Your task to perform on an android device: Clear the shopping cart on amazon.com. Image 0: 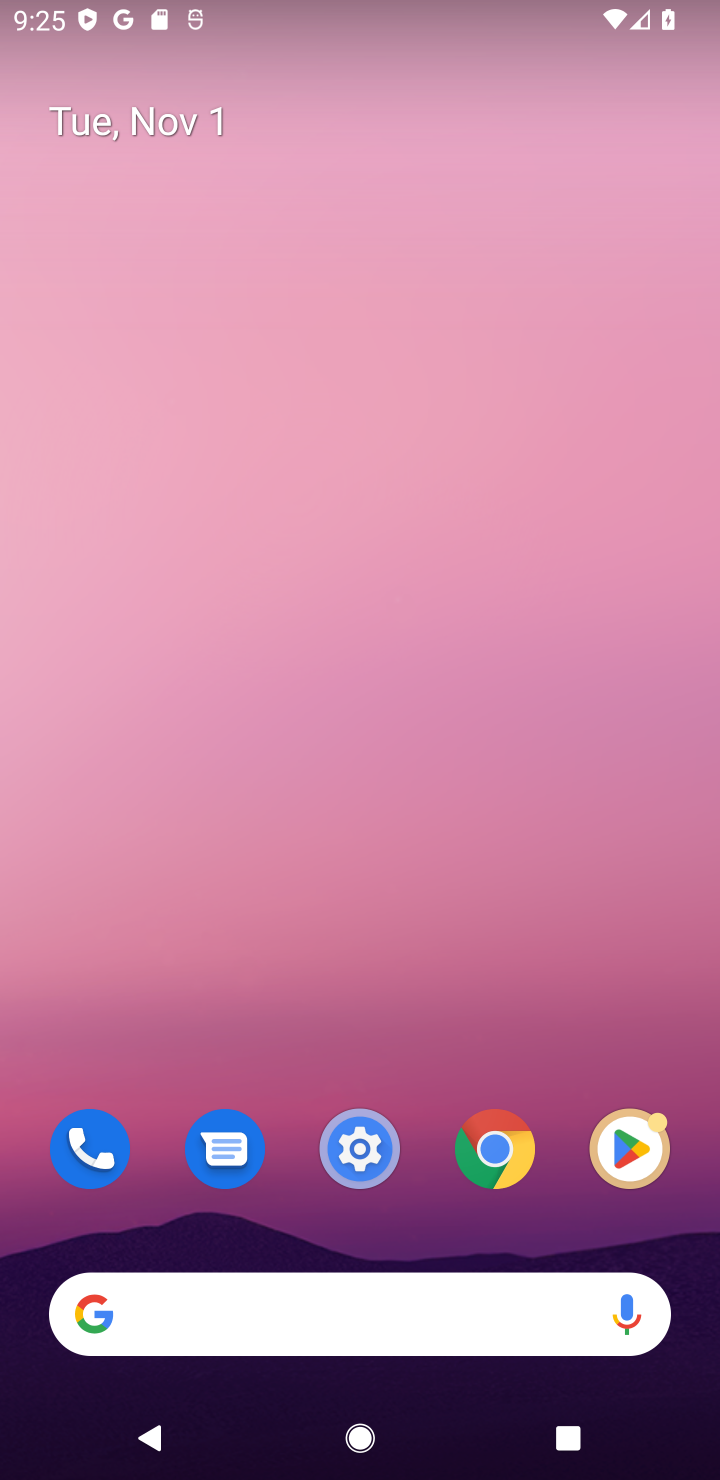
Step 0: press home button
Your task to perform on an android device: Clear the shopping cart on amazon.com. Image 1: 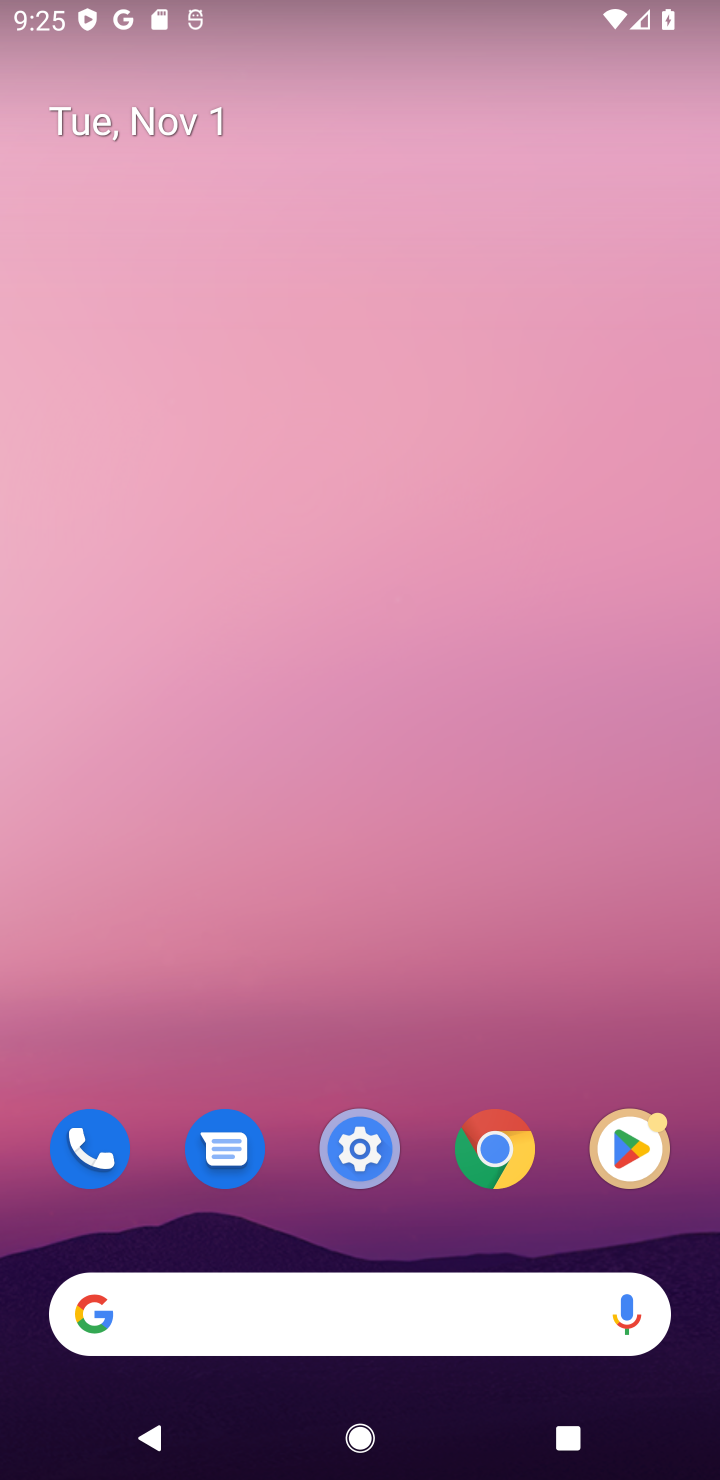
Step 1: click (134, 1315)
Your task to perform on an android device: Clear the shopping cart on amazon.com. Image 2: 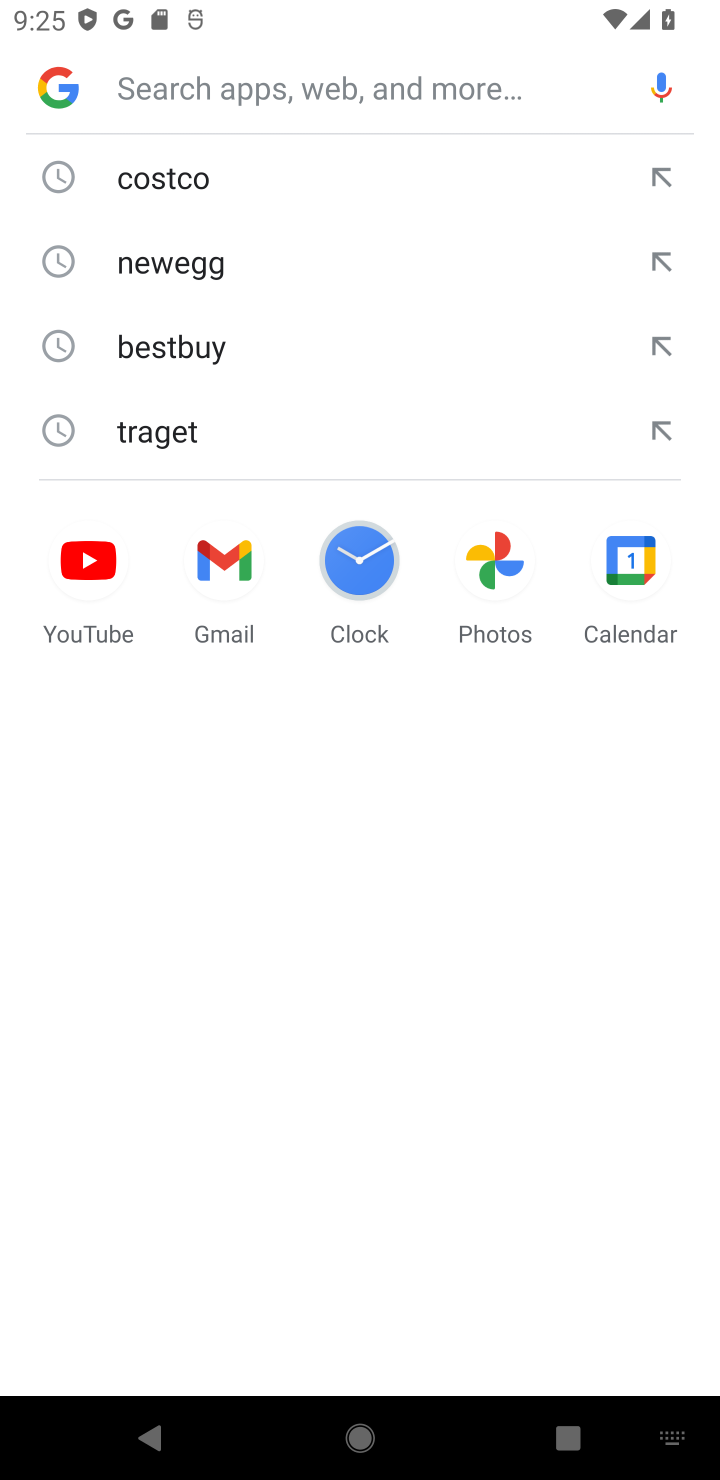
Step 2: press enter
Your task to perform on an android device: Clear the shopping cart on amazon.com. Image 3: 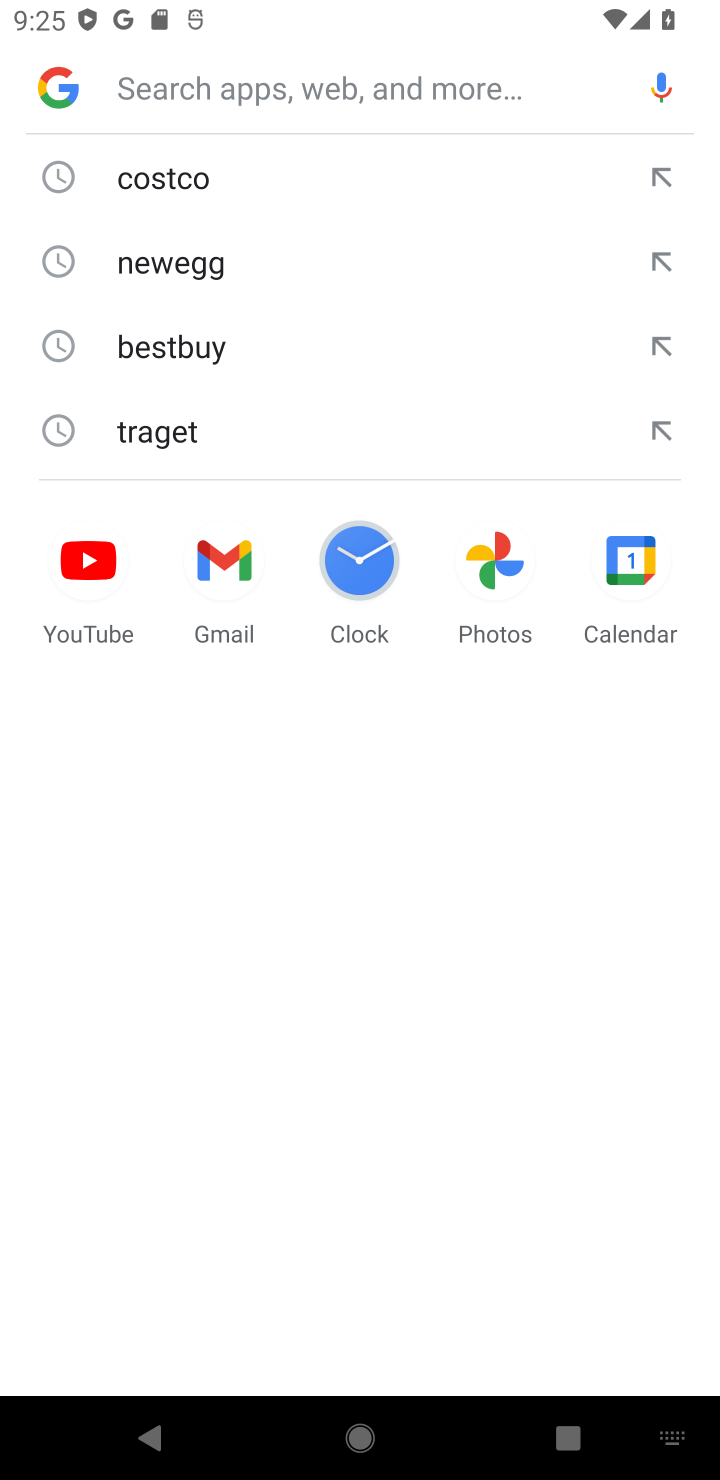
Step 3: type "amazon.com"
Your task to perform on an android device: Clear the shopping cart on amazon.com. Image 4: 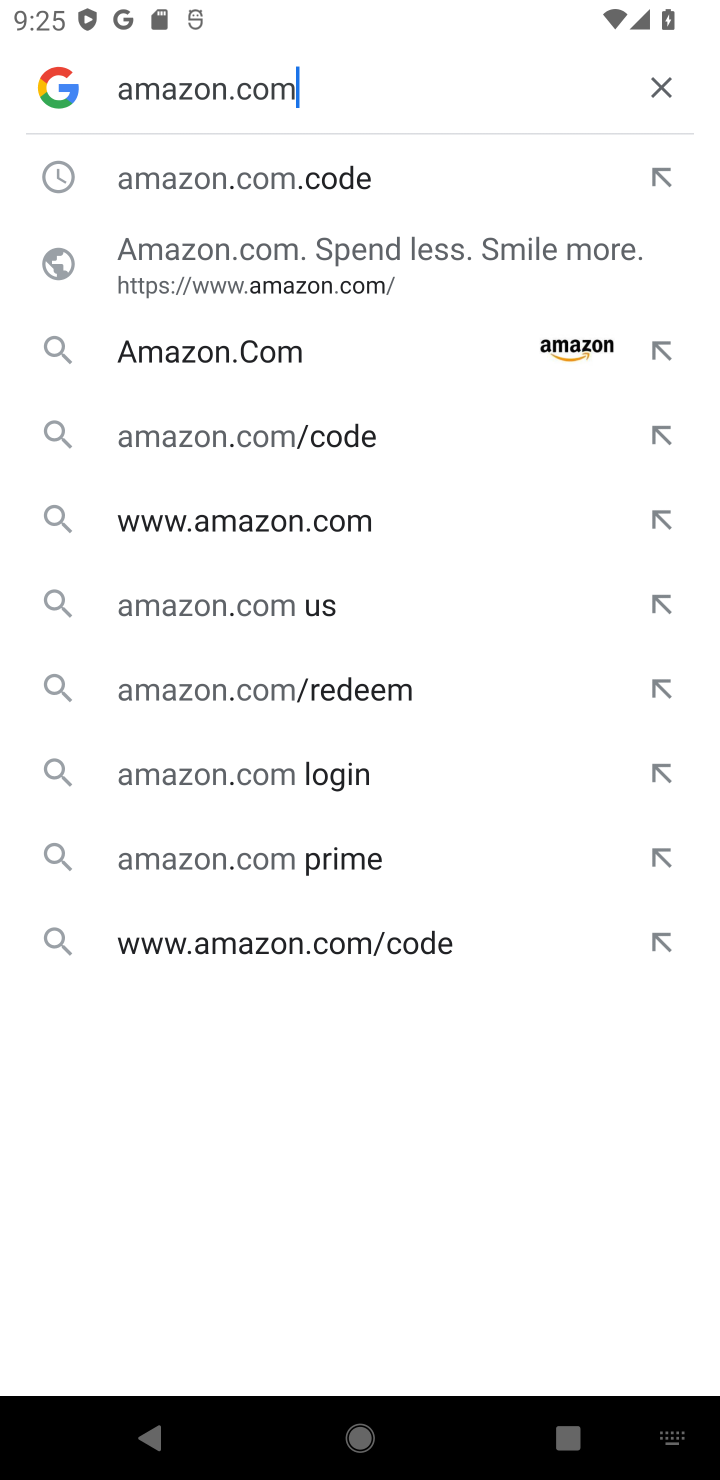
Step 4: press enter
Your task to perform on an android device: Clear the shopping cart on amazon.com. Image 5: 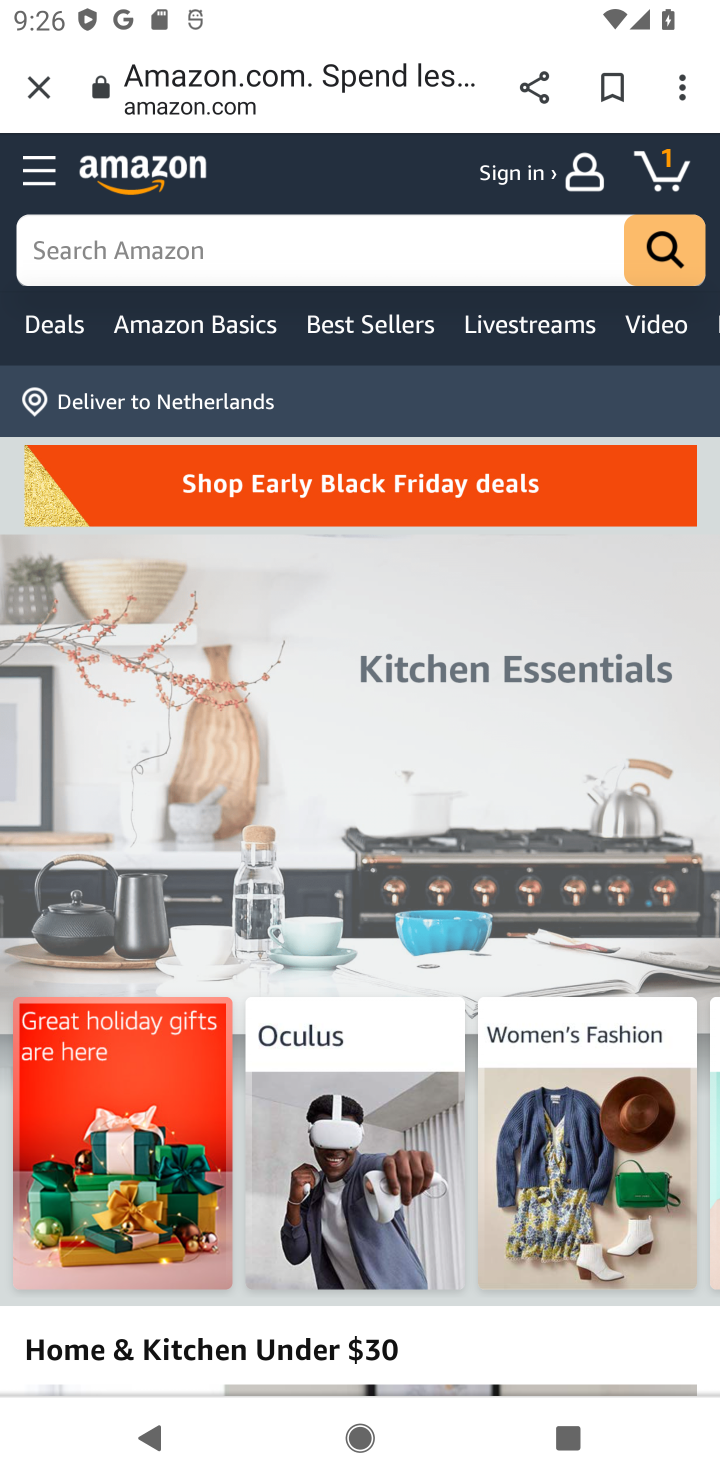
Step 5: click (668, 182)
Your task to perform on an android device: Clear the shopping cart on amazon.com. Image 6: 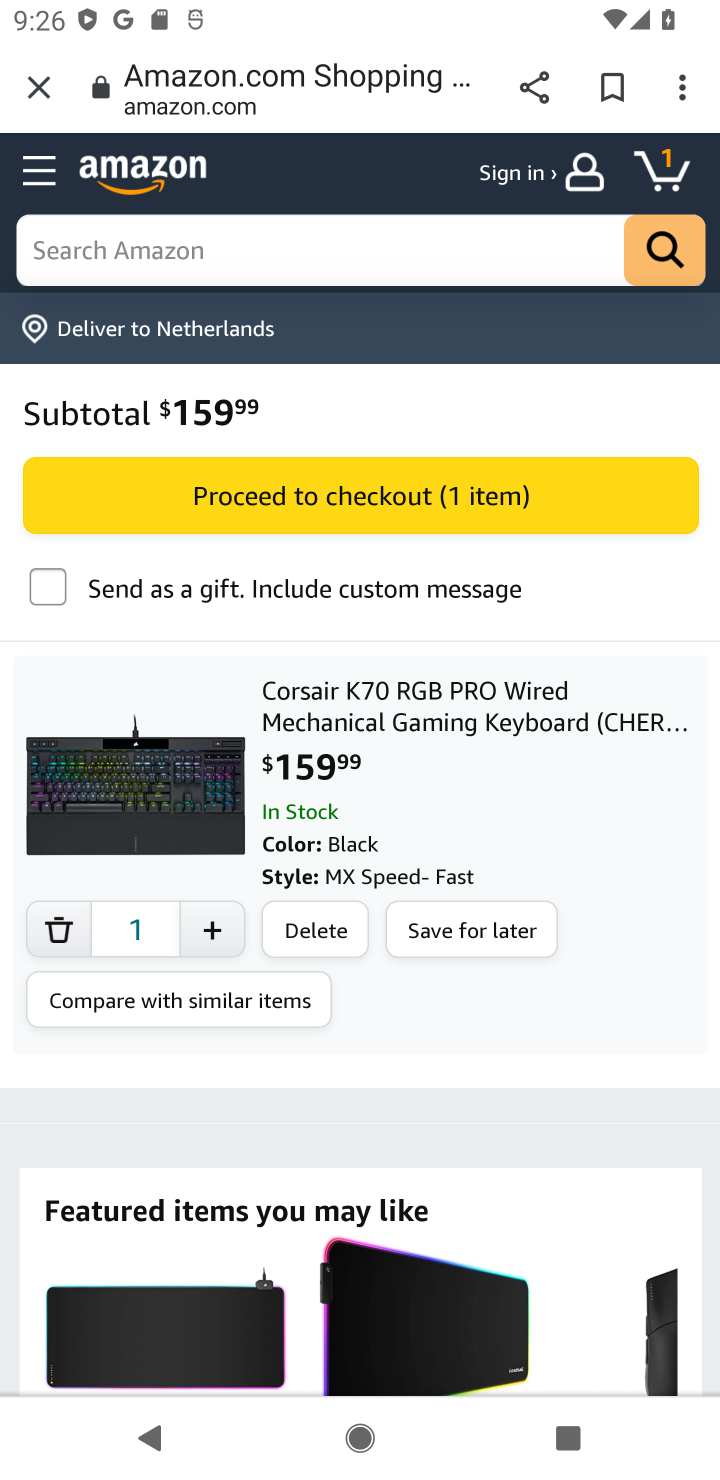
Step 6: click (662, 160)
Your task to perform on an android device: Clear the shopping cart on amazon.com. Image 7: 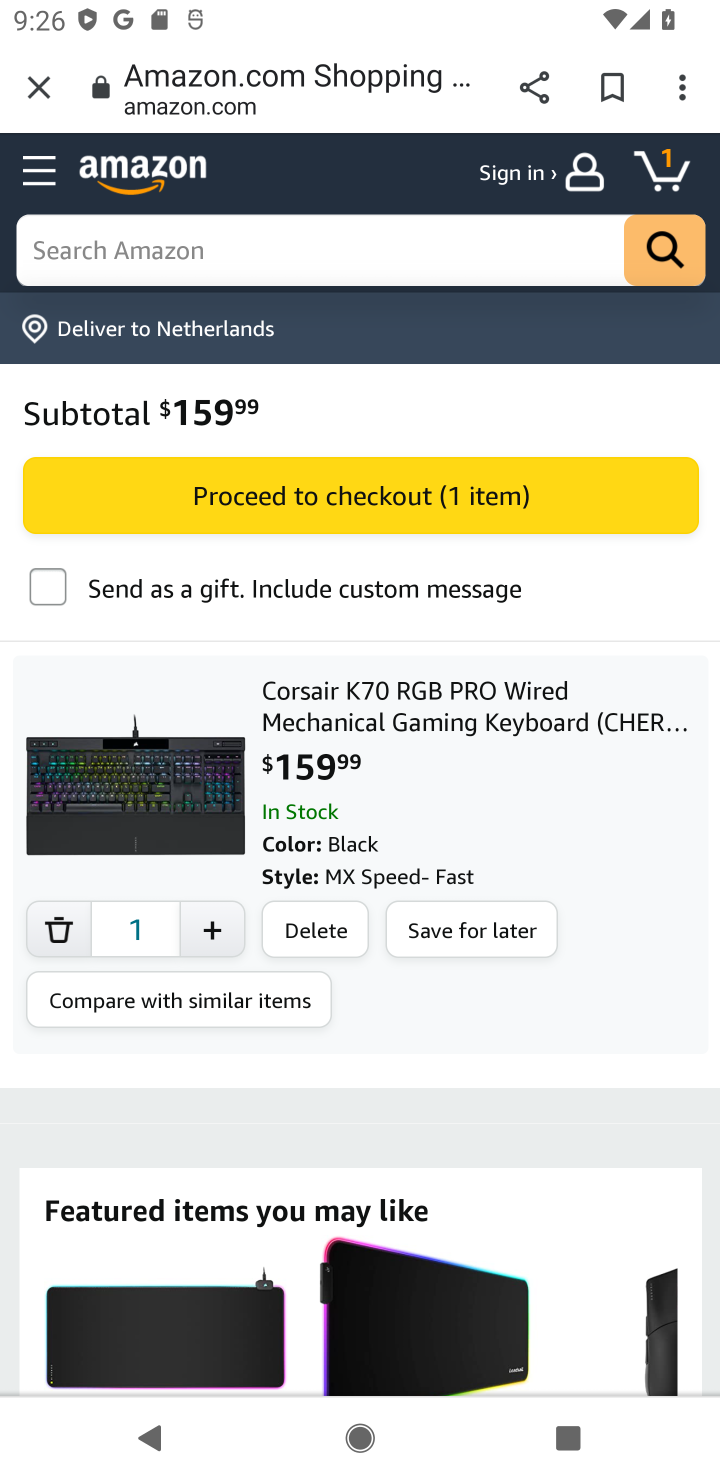
Step 7: click (58, 939)
Your task to perform on an android device: Clear the shopping cart on amazon.com. Image 8: 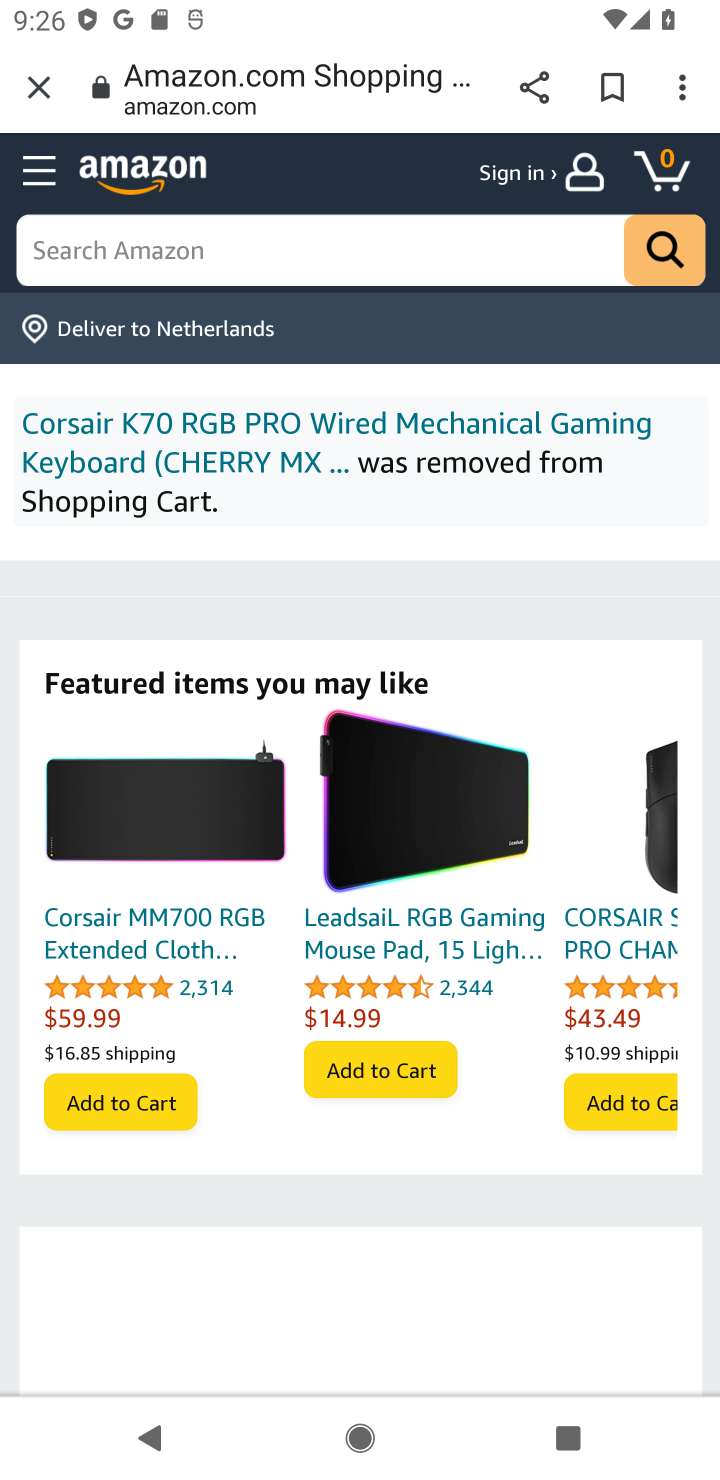
Step 8: task complete